Your task to perform on an android device: turn off priority inbox in the gmail app Image 0: 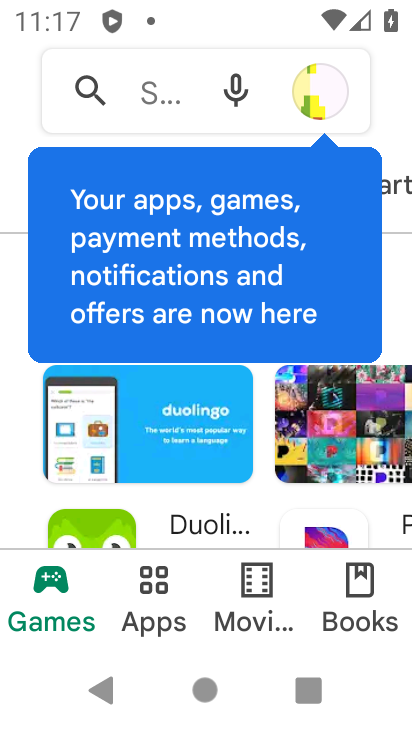
Step 0: press home button
Your task to perform on an android device: turn off priority inbox in the gmail app Image 1: 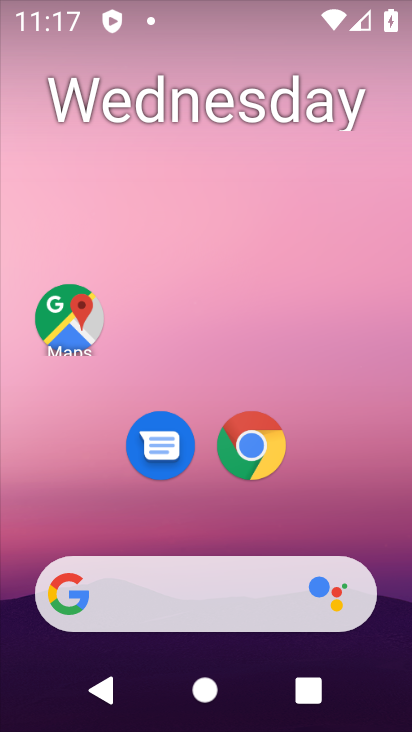
Step 1: drag from (349, 502) to (333, 337)
Your task to perform on an android device: turn off priority inbox in the gmail app Image 2: 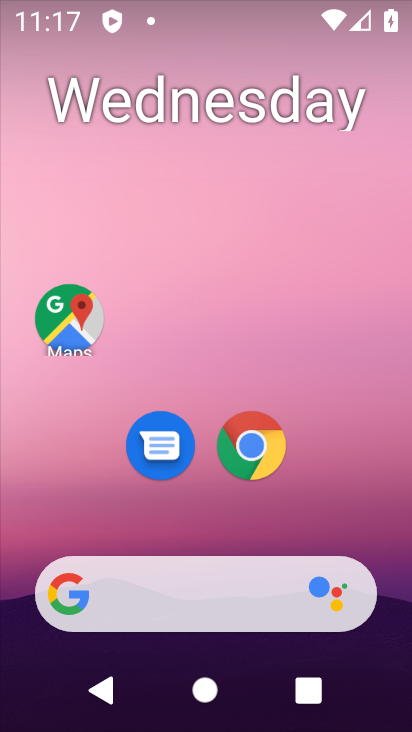
Step 2: drag from (318, 492) to (226, 151)
Your task to perform on an android device: turn off priority inbox in the gmail app Image 3: 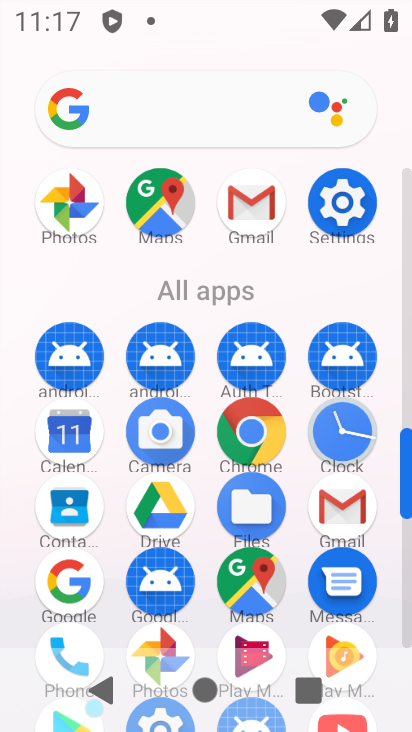
Step 3: click (246, 199)
Your task to perform on an android device: turn off priority inbox in the gmail app Image 4: 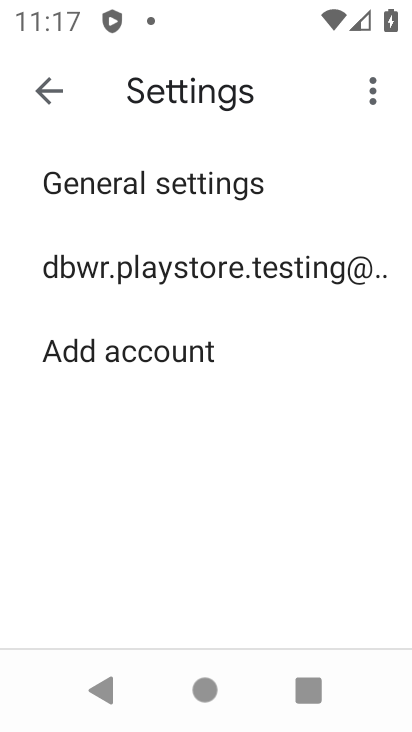
Step 4: click (249, 268)
Your task to perform on an android device: turn off priority inbox in the gmail app Image 5: 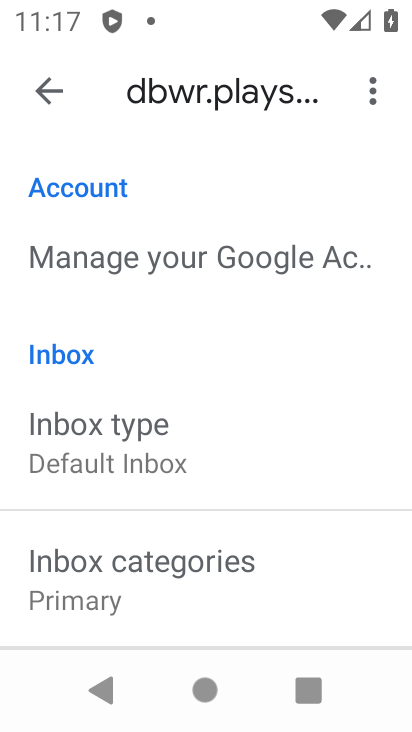
Step 5: drag from (280, 567) to (167, 192)
Your task to perform on an android device: turn off priority inbox in the gmail app Image 6: 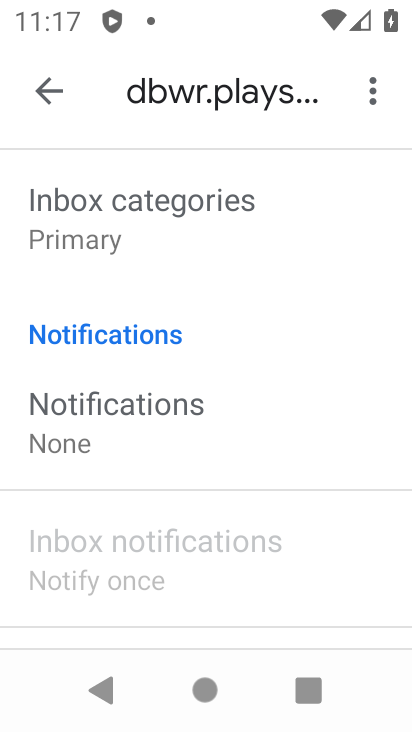
Step 6: drag from (278, 547) to (182, 214)
Your task to perform on an android device: turn off priority inbox in the gmail app Image 7: 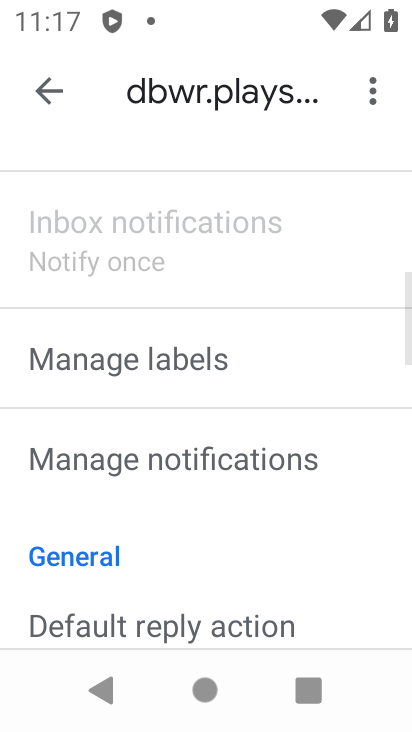
Step 7: drag from (178, 190) to (294, 514)
Your task to perform on an android device: turn off priority inbox in the gmail app Image 8: 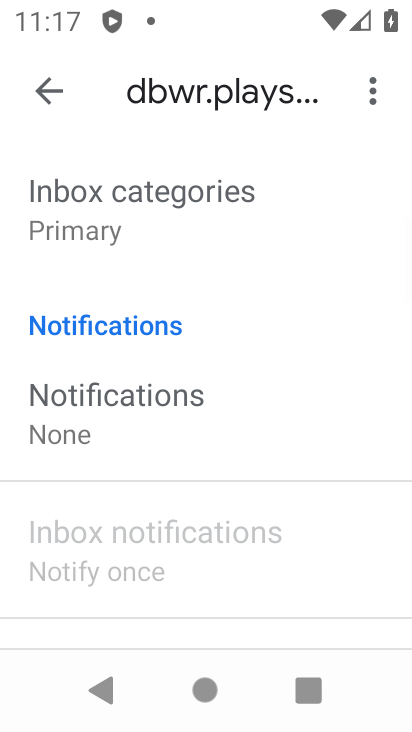
Step 8: drag from (210, 275) to (313, 579)
Your task to perform on an android device: turn off priority inbox in the gmail app Image 9: 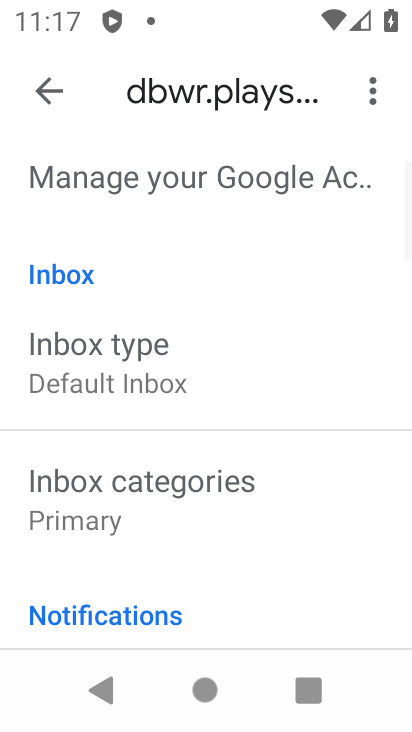
Step 9: drag from (175, 323) to (265, 653)
Your task to perform on an android device: turn off priority inbox in the gmail app Image 10: 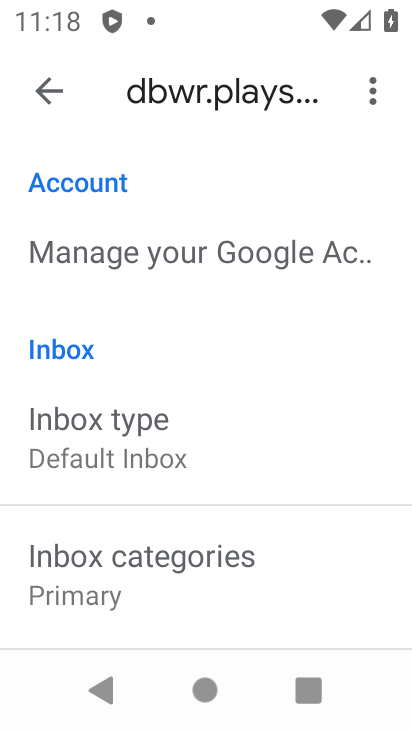
Step 10: click (99, 428)
Your task to perform on an android device: turn off priority inbox in the gmail app Image 11: 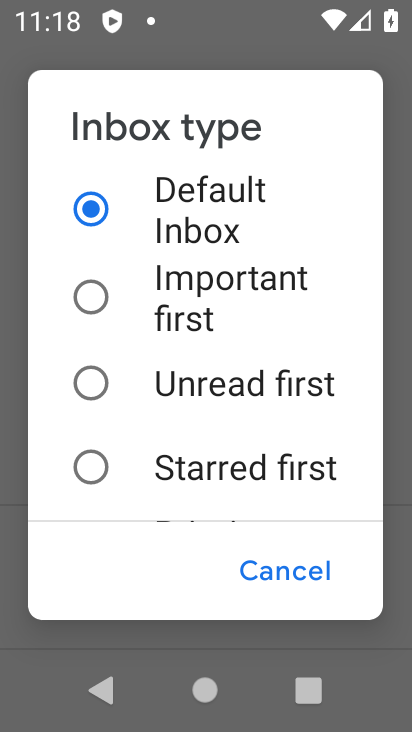
Step 11: task complete